Your task to perform on an android device: Open privacy settings Image 0: 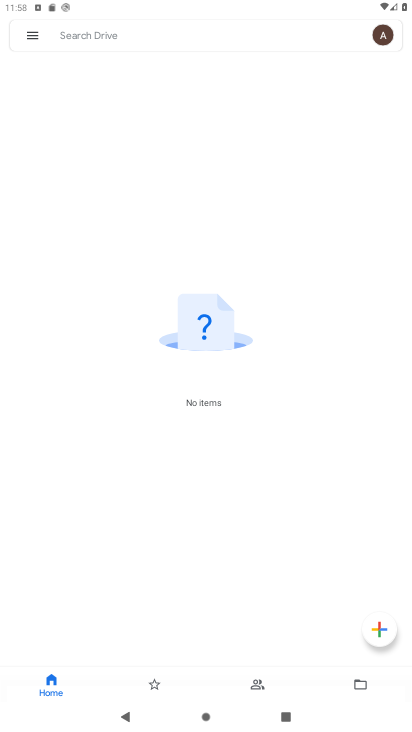
Step 0: press home button
Your task to perform on an android device: Open privacy settings Image 1: 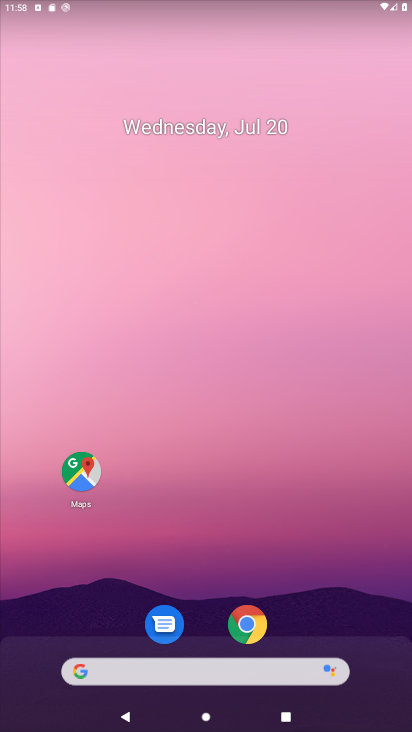
Step 1: drag from (214, 542) to (198, 48)
Your task to perform on an android device: Open privacy settings Image 2: 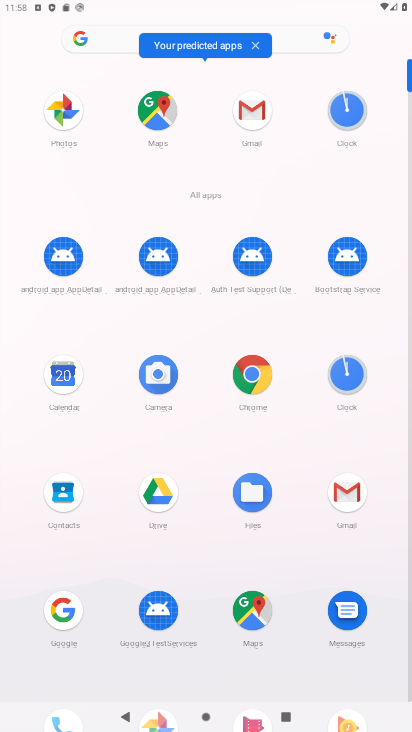
Step 2: drag from (197, 542) to (232, 229)
Your task to perform on an android device: Open privacy settings Image 3: 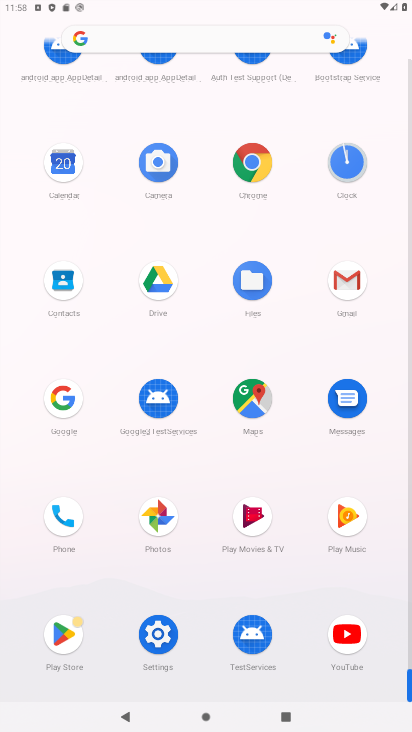
Step 3: click (158, 642)
Your task to perform on an android device: Open privacy settings Image 4: 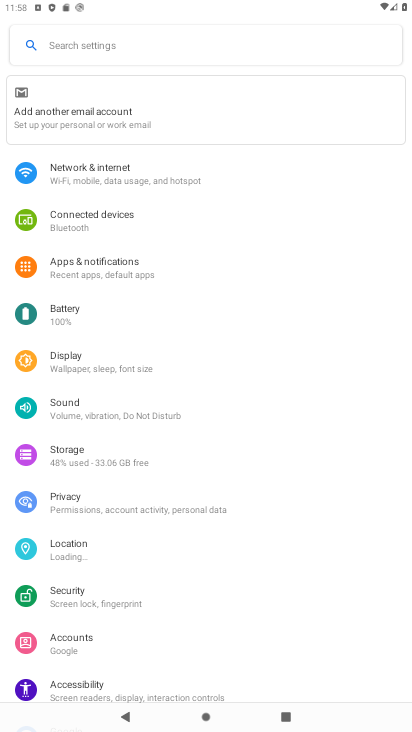
Step 4: click (119, 508)
Your task to perform on an android device: Open privacy settings Image 5: 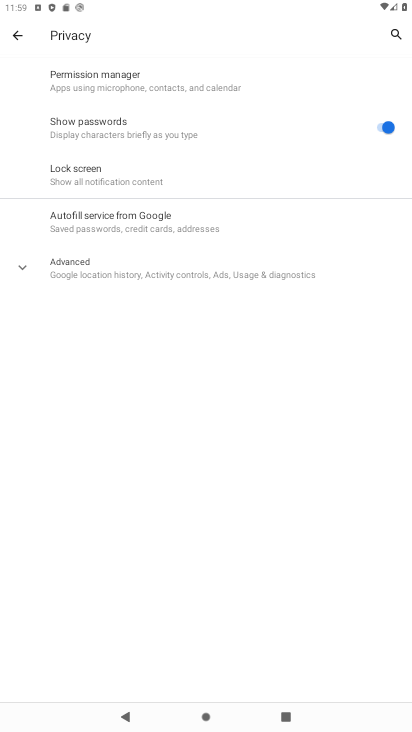
Step 5: task complete